Your task to perform on an android device: turn on javascript in the chrome app Image 0: 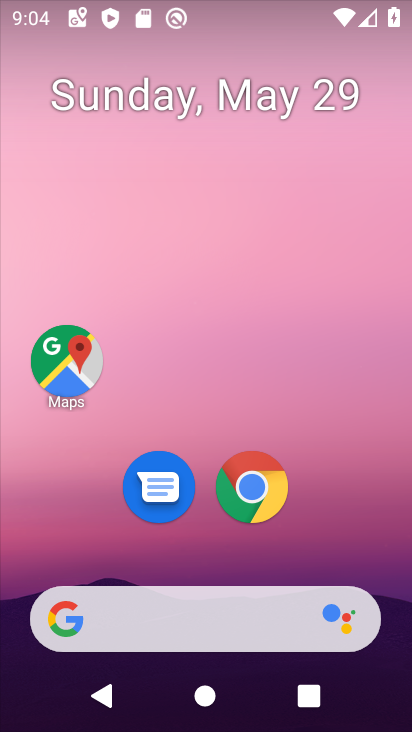
Step 0: click (255, 506)
Your task to perform on an android device: turn on javascript in the chrome app Image 1: 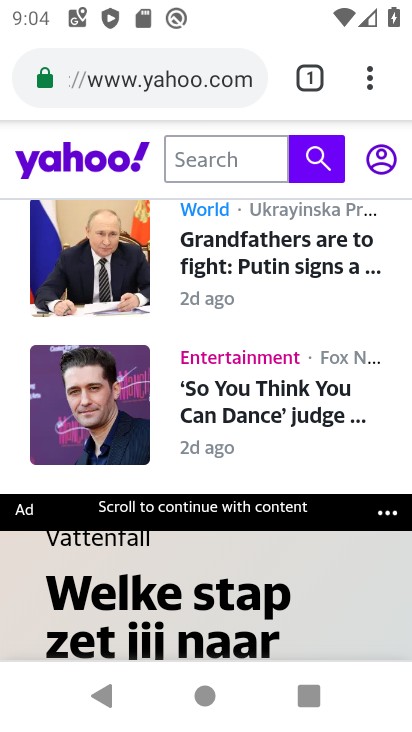
Step 1: click (374, 90)
Your task to perform on an android device: turn on javascript in the chrome app Image 2: 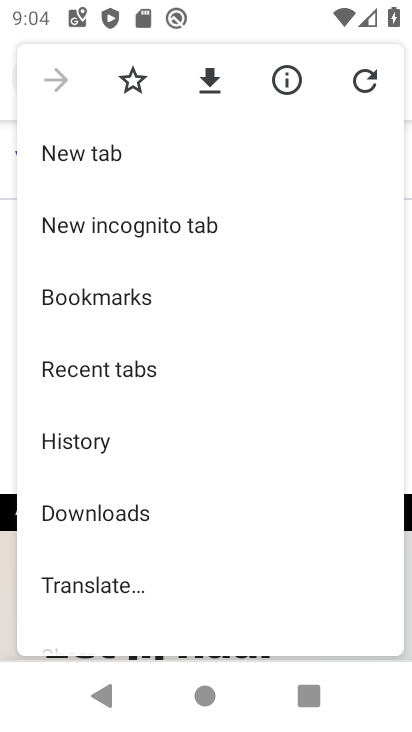
Step 2: drag from (246, 559) to (278, 260)
Your task to perform on an android device: turn on javascript in the chrome app Image 3: 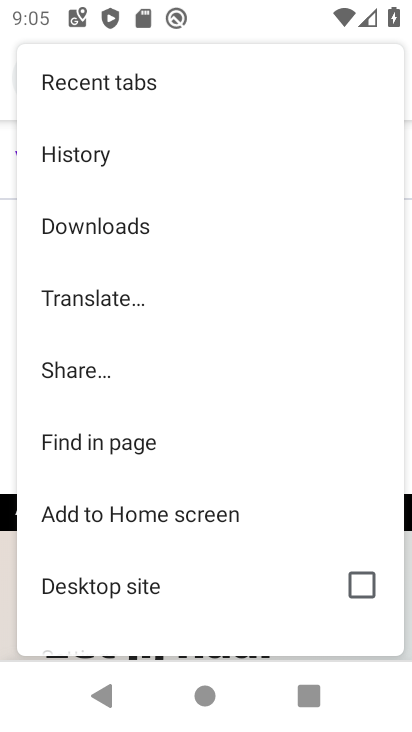
Step 3: drag from (190, 546) to (195, 296)
Your task to perform on an android device: turn on javascript in the chrome app Image 4: 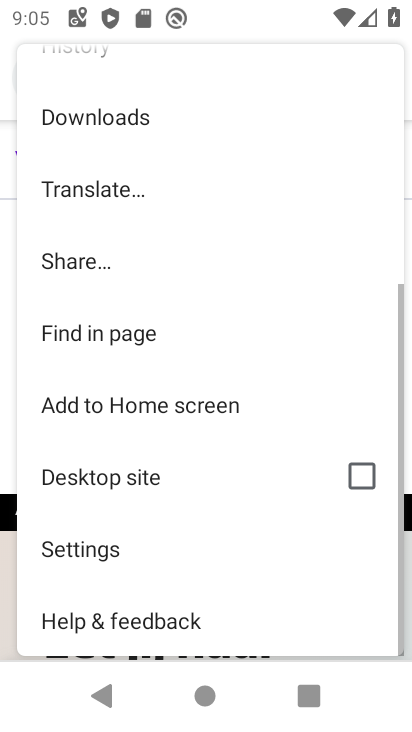
Step 4: click (99, 554)
Your task to perform on an android device: turn on javascript in the chrome app Image 5: 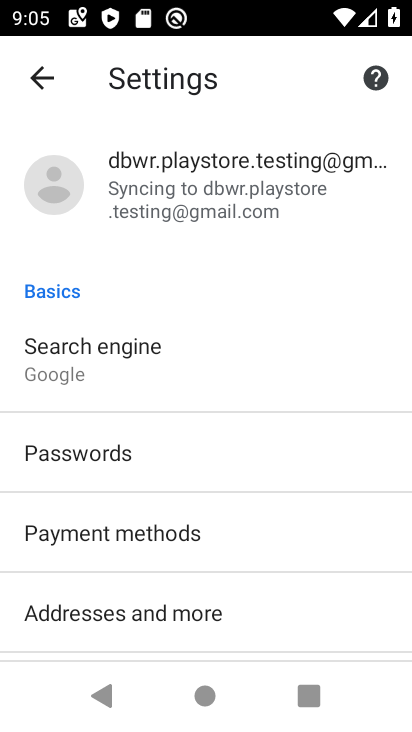
Step 5: drag from (319, 600) to (292, 138)
Your task to perform on an android device: turn on javascript in the chrome app Image 6: 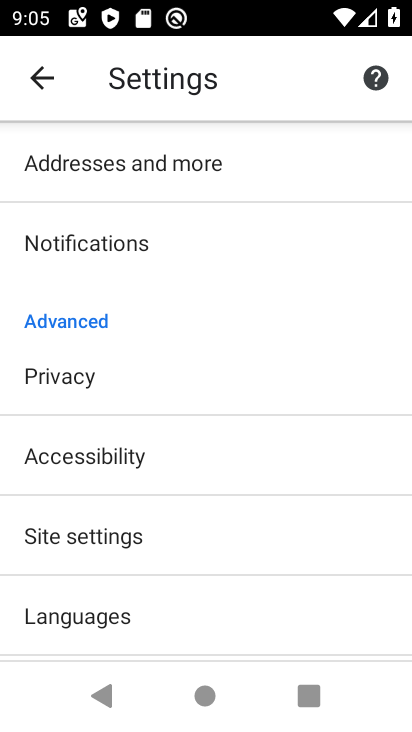
Step 6: click (129, 540)
Your task to perform on an android device: turn on javascript in the chrome app Image 7: 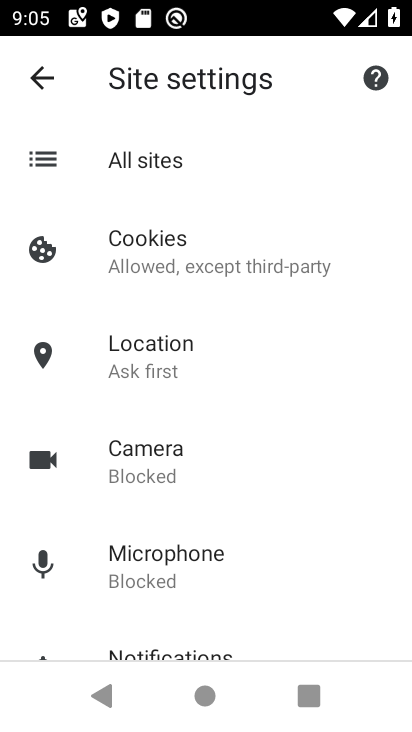
Step 7: drag from (283, 583) to (270, 258)
Your task to perform on an android device: turn on javascript in the chrome app Image 8: 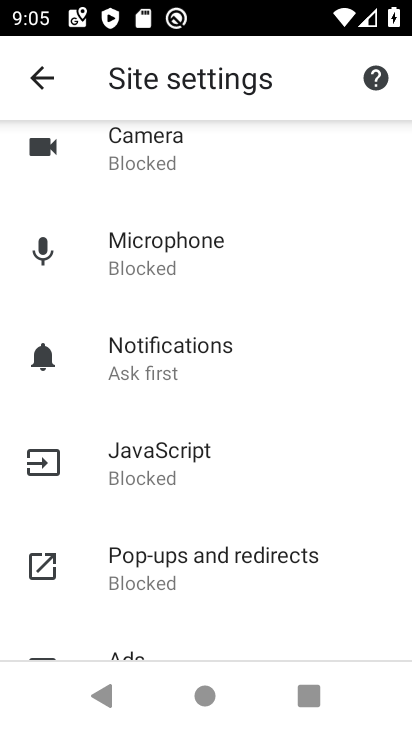
Step 8: click (179, 482)
Your task to perform on an android device: turn on javascript in the chrome app Image 9: 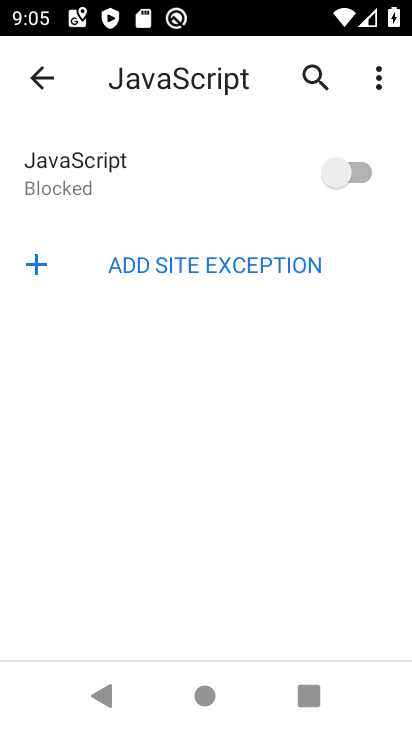
Step 9: click (361, 177)
Your task to perform on an android device: turn on javascript in the chrome app Image 10: 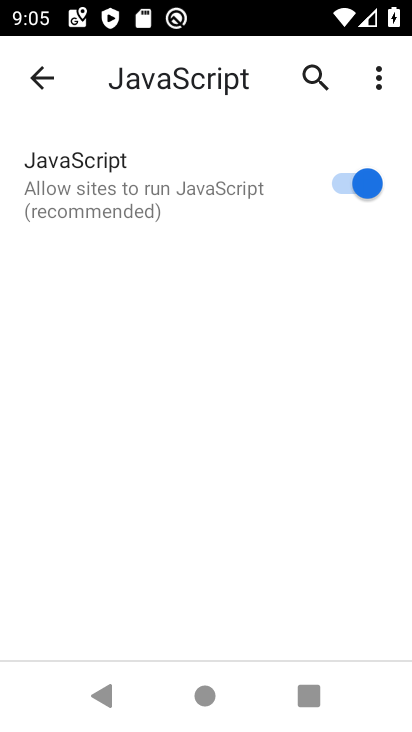
Step 10: task complete